Your task to perform on an android device: Go to Wikipedia Image 0: 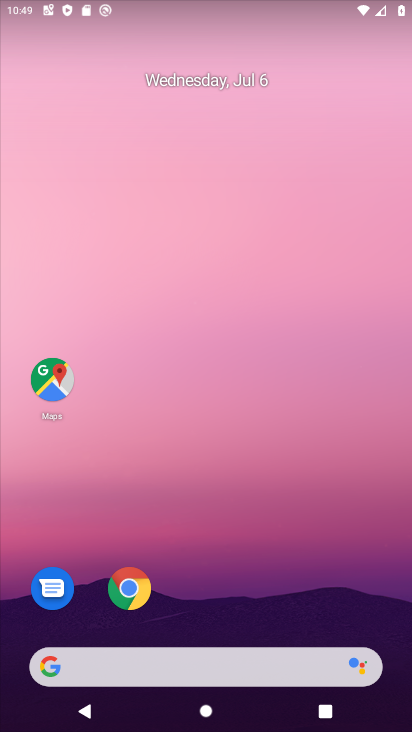
Step 0: click (236, 629)
Your task to perform on an android device: Go to Wikipedia Image 1: 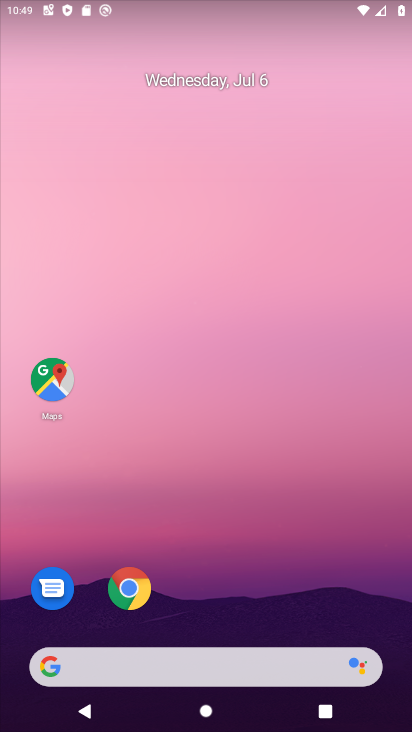
Step 1: drag from (238, 622) to (237, 269)
Your task to perform on an android device: Go to Wikipedia Image 2: 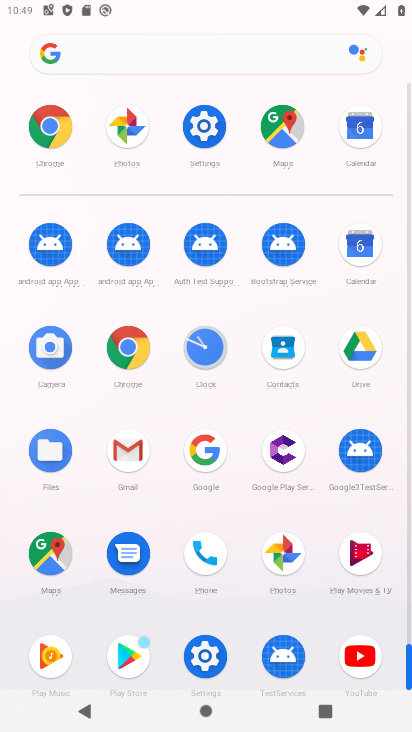
Step 2: click (42, 117)
Your task to perform on an android device: Go to Wikipedia Image 3: 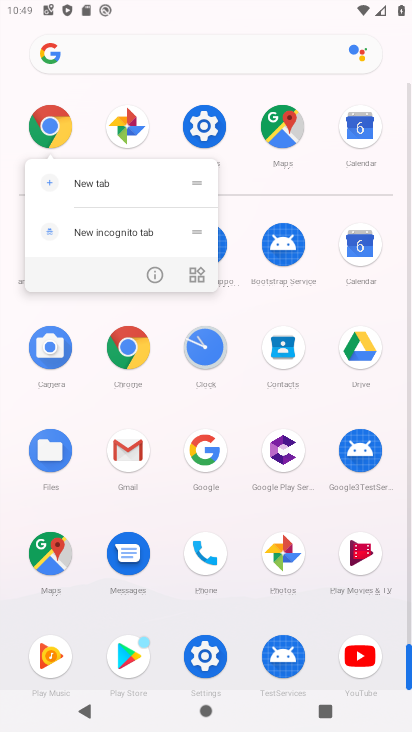
Step 3: click (42, 117)
Your task to perform on an android device: Go to Wikipedia Image 4: 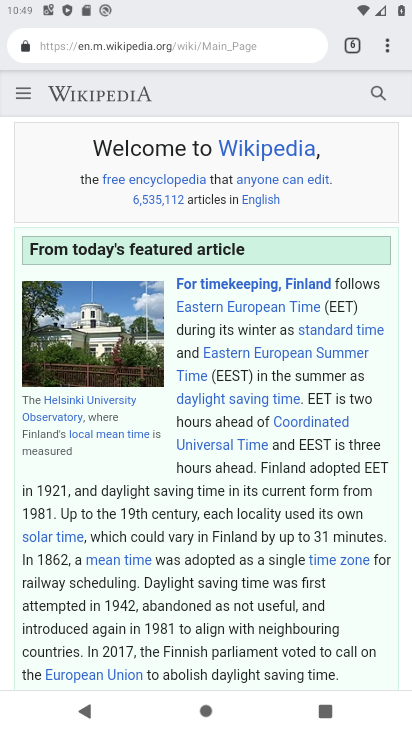
Step 4: task complete